Your task to perform on an android device: Open CNN.com Image 0: 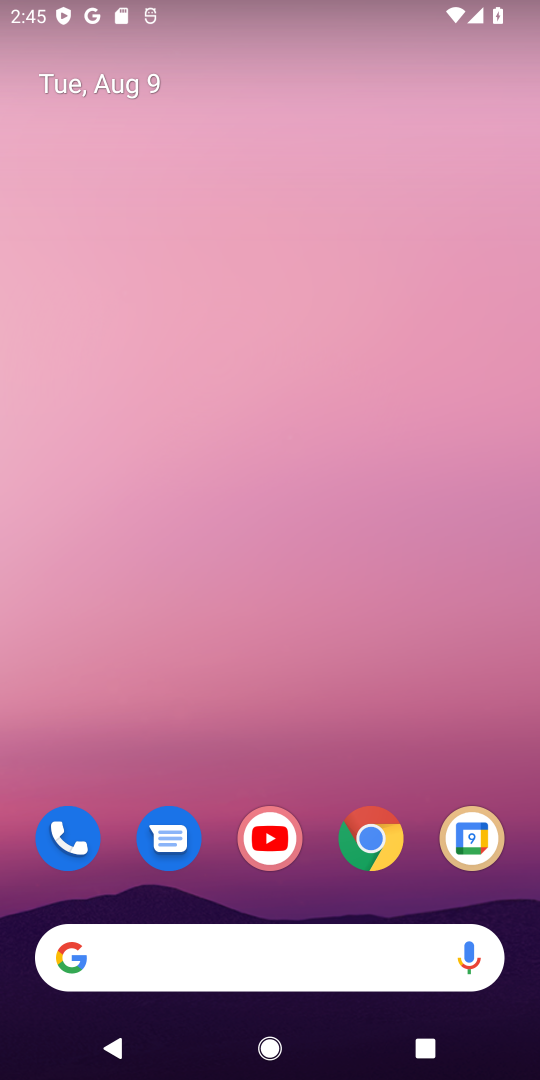
Step 0: click (384, 847)
Your task to perform on an android device: Open CNN.com Image 1: 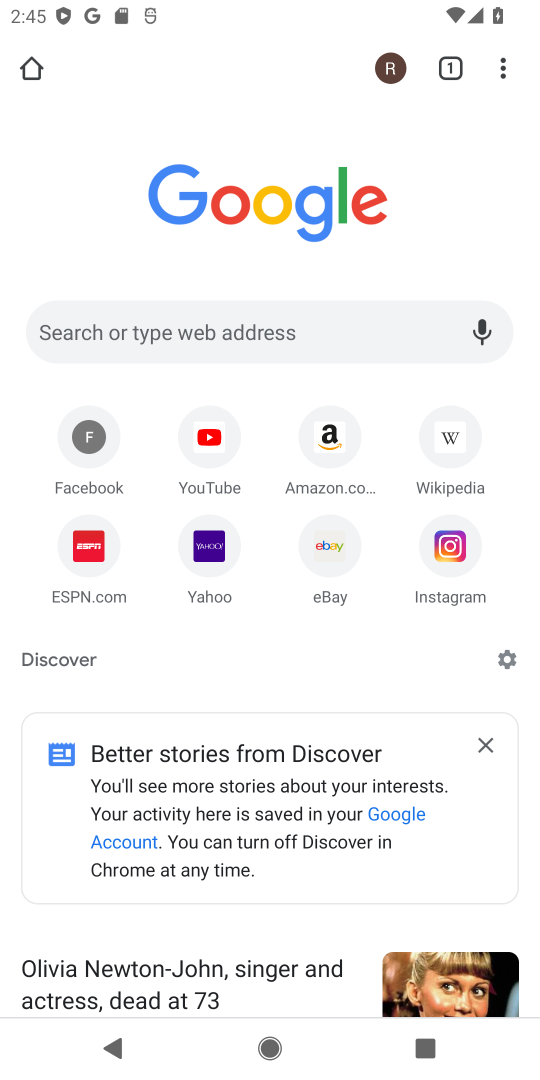
Step 1: click (172, 329)
Your task to perform on an android device: Open CNN.com Image 2: 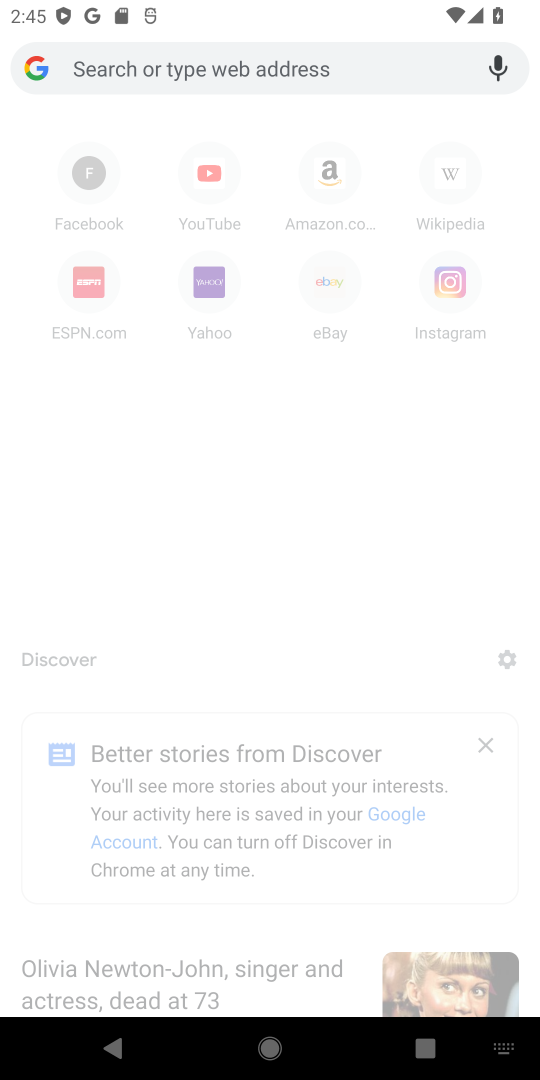
Step 2: type "cnn.com"
Your task to perform on an android device: Open CNN.com Image 3: 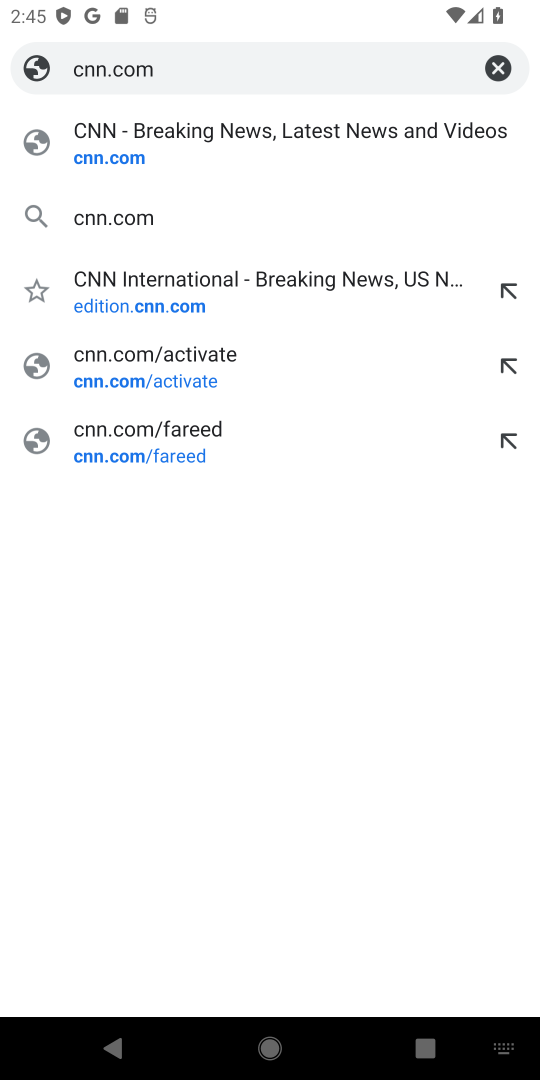
Step 3: click (169, 130)
Your task to perform on an android device: Open CNN.com Image 4: 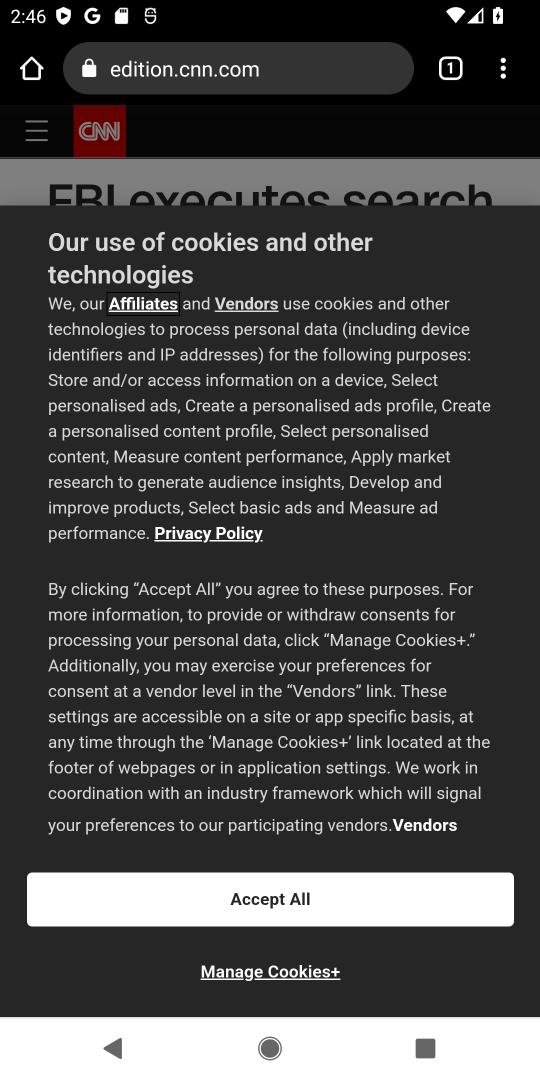
Step 4: task complete